Your task to perform on an android device: change the clock style Image 0: 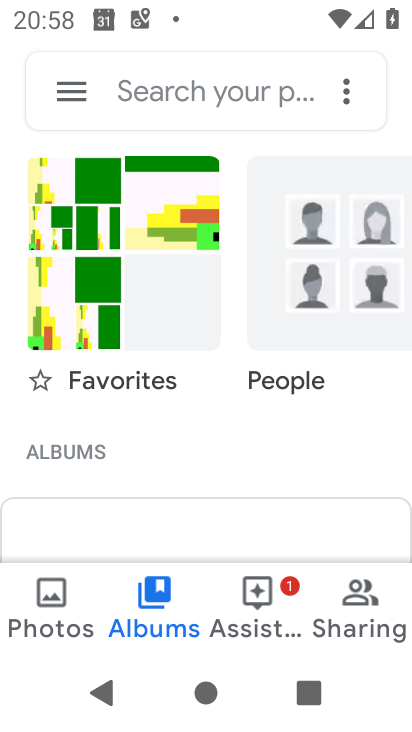
Step 0: press home button
Your task to perform on an android device: change the clock style Image 1: 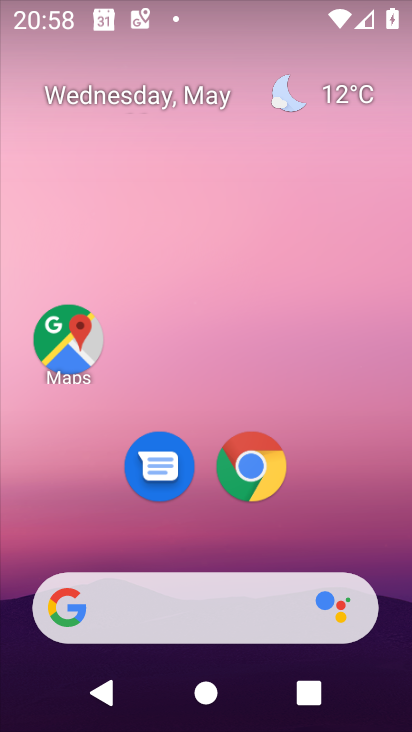
Step 1: drag from (208, 539) to (211, 75)
Your task to perform on an android device: change the clock style Image 2: 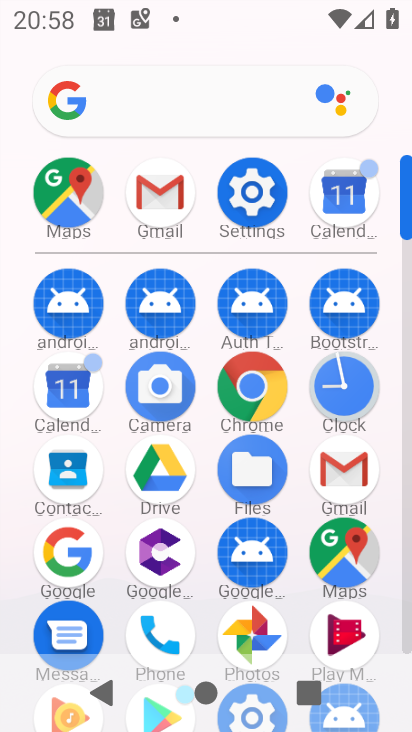
Step 2: click (343, 384)
Your task to perform on an android device: change the clock style Image 3: 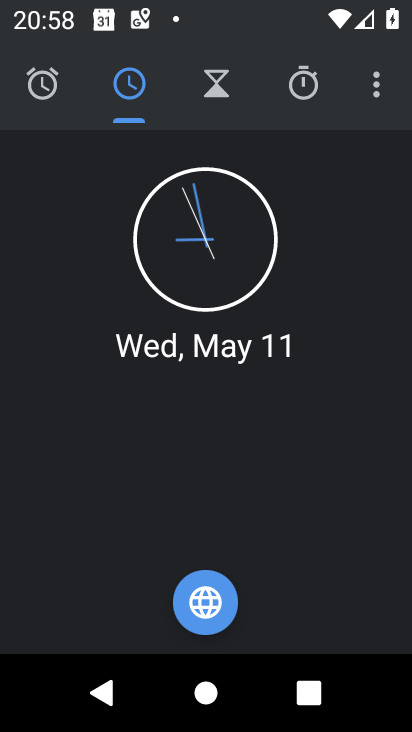
Step 3: click (370, 82)
Your task to perform on an android device: change the clock style Image 4: 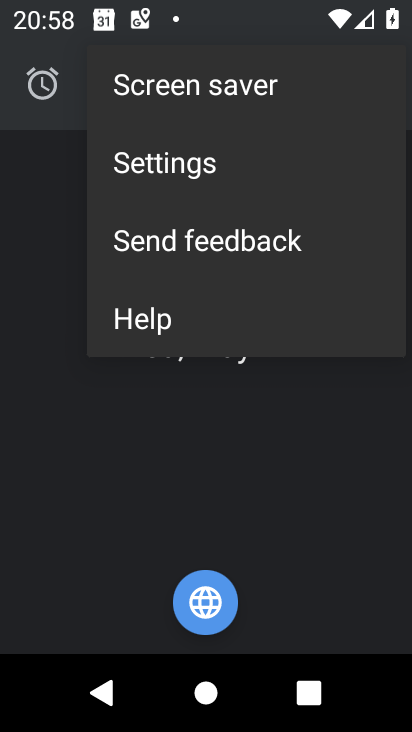
Step 4: click (236, 163)
Your task to perform on an android device: change the clock style Image 5: 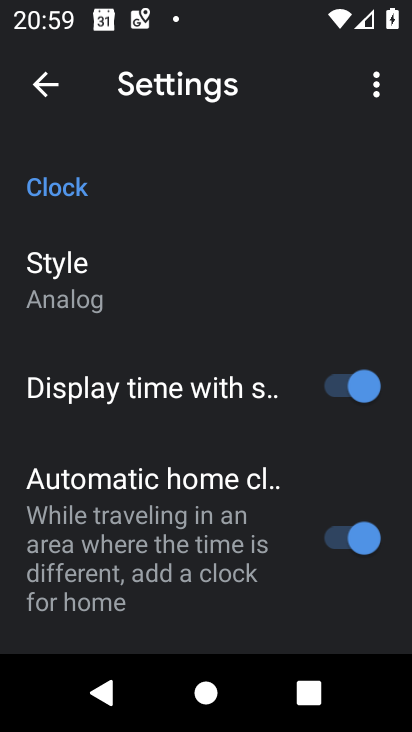
Step 5: click (97, 288)
Your task to perform on an android device: change the clock style Image 6: 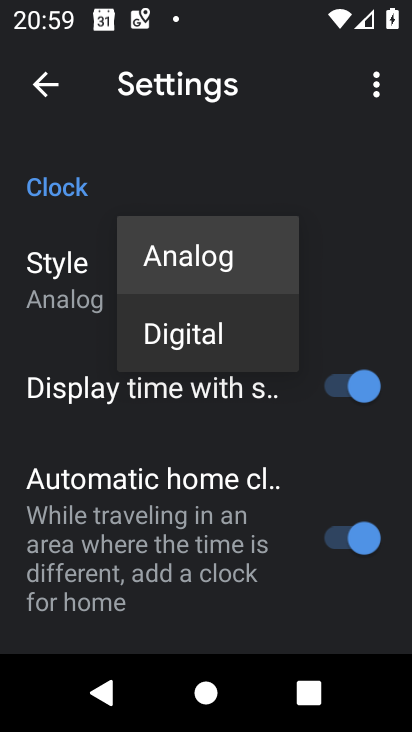
Step 6: click (162, 335)
Your task to perform on an android device: change the clock style Image 7: 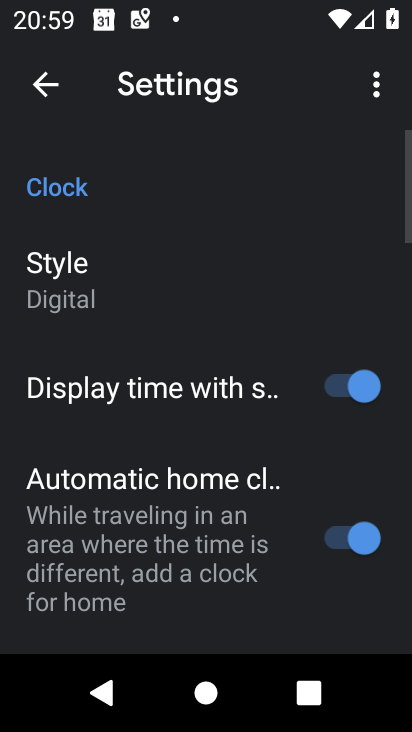
Step 7: task complete